Your task to perform on an android device: turn notification dots off Image 0: 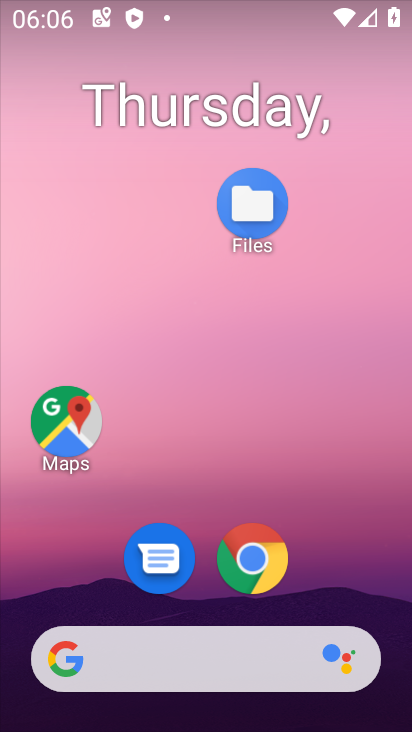
Step 0: drag from (315, 584) to (258, 11)
Your task to perform on an android device: turn notification dots off Image 1: 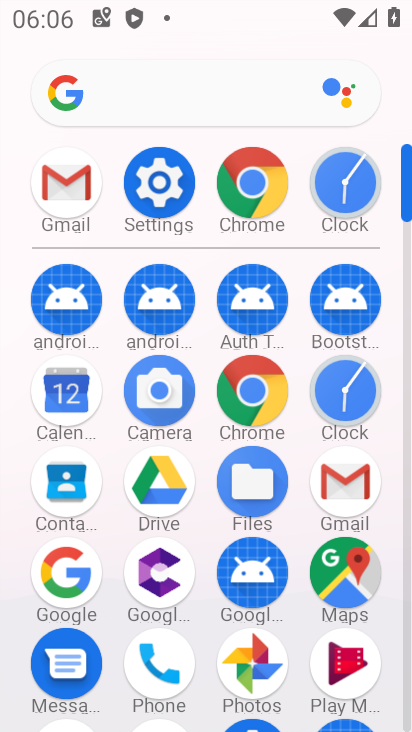
Step 1: click (162, 190)
Your task to perform on an android device: turn notification dots off Image 2: 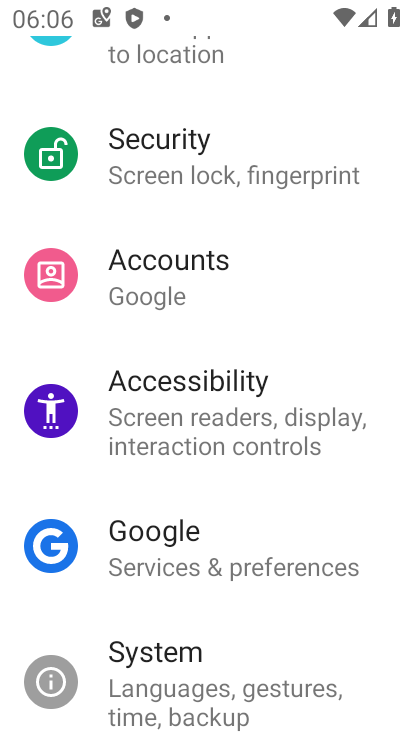
Step 2: drag from (268, 252) to (225, 614)
Your task to perform on an android device: turn notification dots off Image 3: 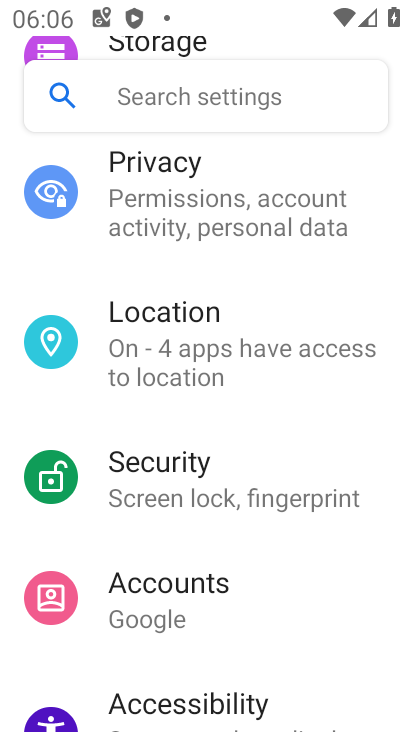
Step 3: drag from (253, 306) to (232, 729)
Your task to perform on an android device: turn notification dots off Image 4: 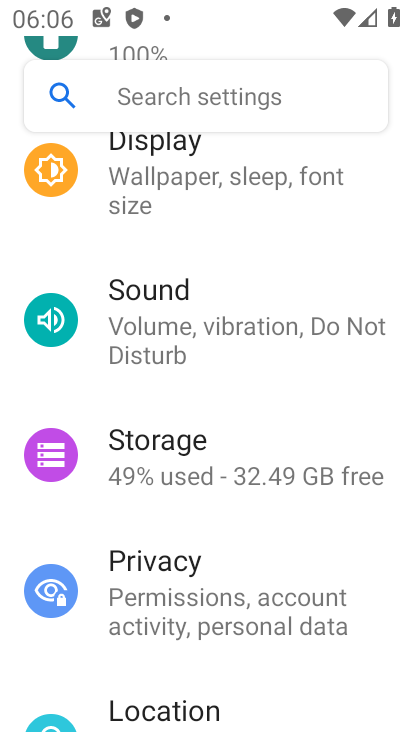
Step 4: drag from (305, 311) to (256, 721)
Your task to perform on an android device: turn notification dots off Image 5: 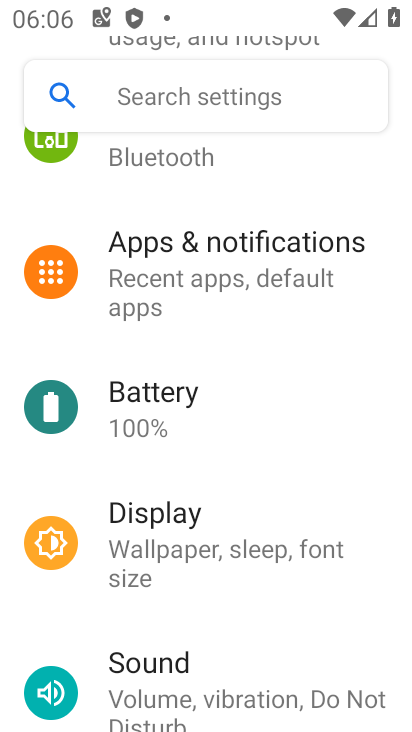
Step 5: drag from (316, 251) to (285, 609)
Your task to perform on an android device: turn notification dots off Image 6: 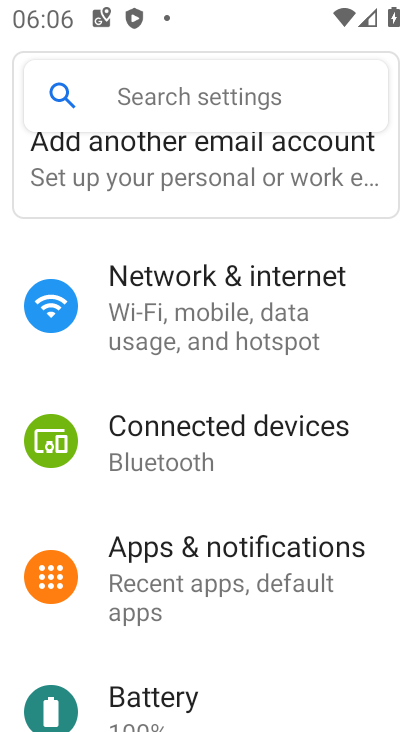
Step 6: click (225, 567)
Your task to perform on an android device: turn notification dots off Image 7: 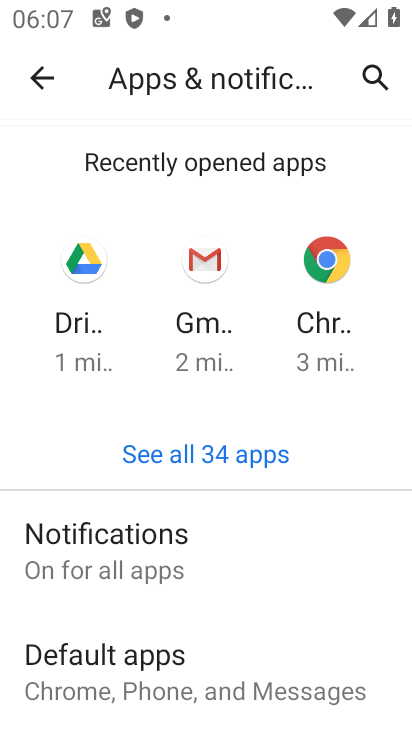
Step 7: click (151, 552)
Your task to perform on an android device: turn notification dots off Image 8: 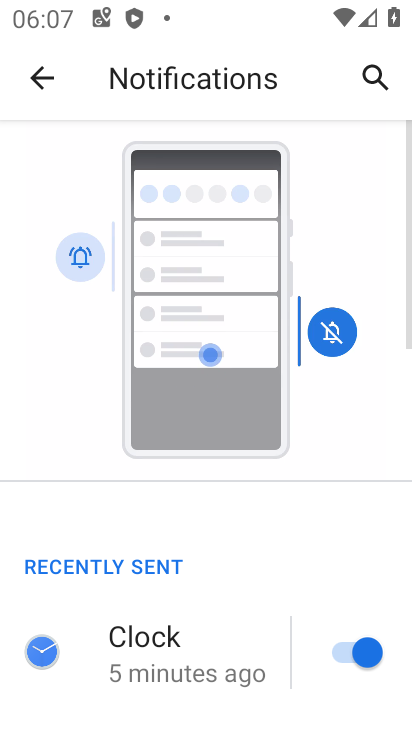
Step 8: drag from (270, 683) to (305, 305)
Your task to perform on an android device: turn notification dots off Image 9: 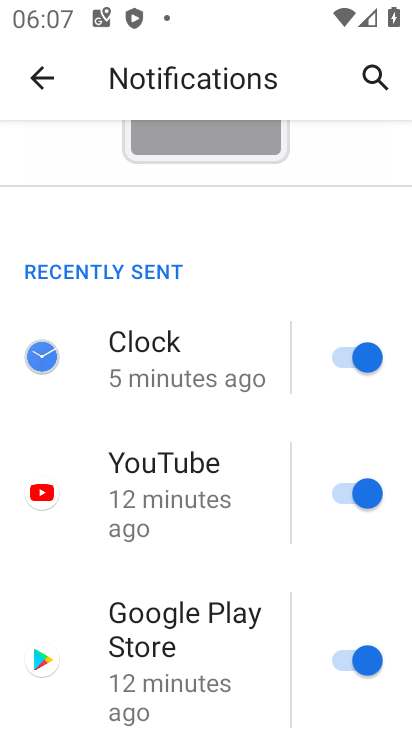
Step 9: drag from (205, 630) to (262, 191)
Your task to perform on an android device: turn notification dots off Image 10: 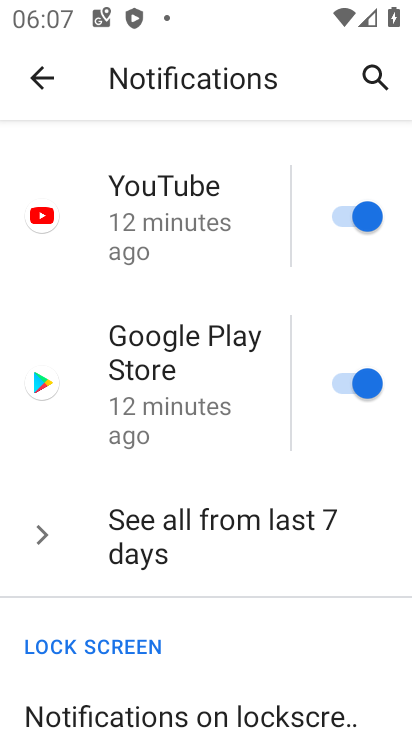
Step 10: drag from (202, 649) to (307, 155)
Your task to perform on an android device: turn notification dots off Image 11: 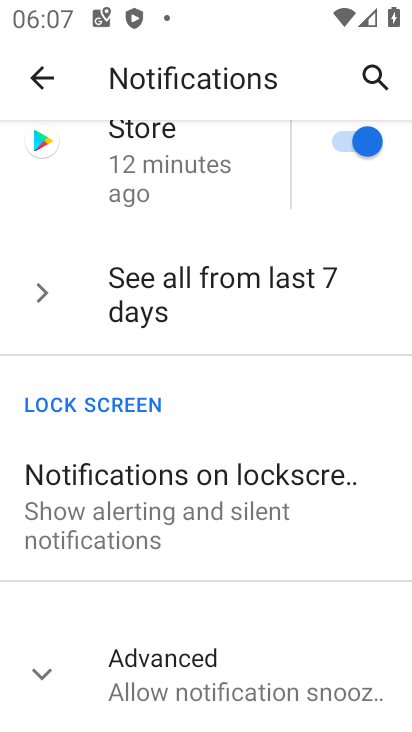
Step 11: click (198, 691)
Your task to perform on an android device: turn notification dots off Image 12: 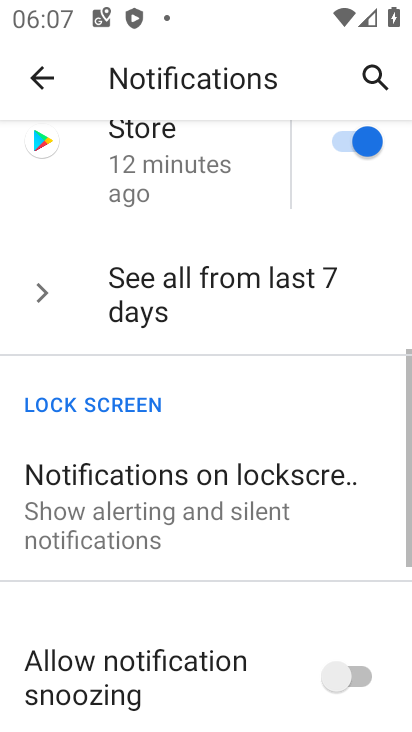
Step 12: task complete